Your task to perform on an android device: Open Google Maps and go to "Timeline" Image 0: 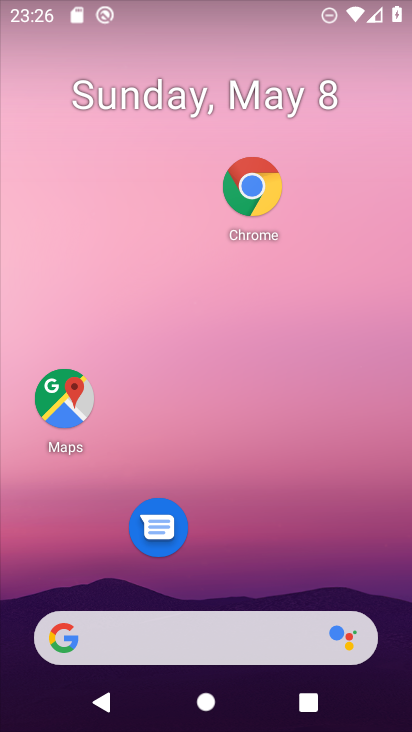
Step 0: drag from (261, 488) to (261, 279)
Your task to perform on an android device: Open Google Maps and go to "Timeline" Image 1: 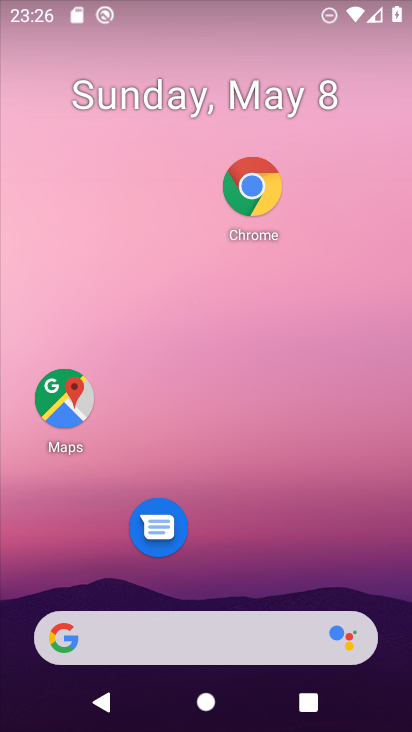
Step 1: drag from (291, 569) to (349, 186)
Your task to perform on an android device: Open Google Maps and go to "Timeline" Image 2: 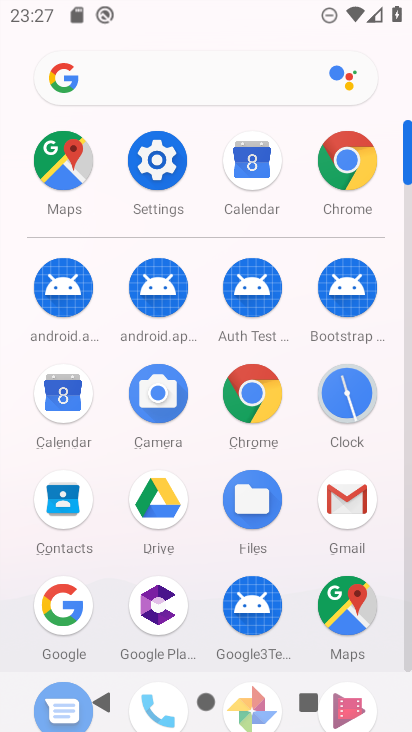
Step 2: click (71, 163)
Your task to perform on an android device: Open Google Maps and go to "Timeline" Image 3: 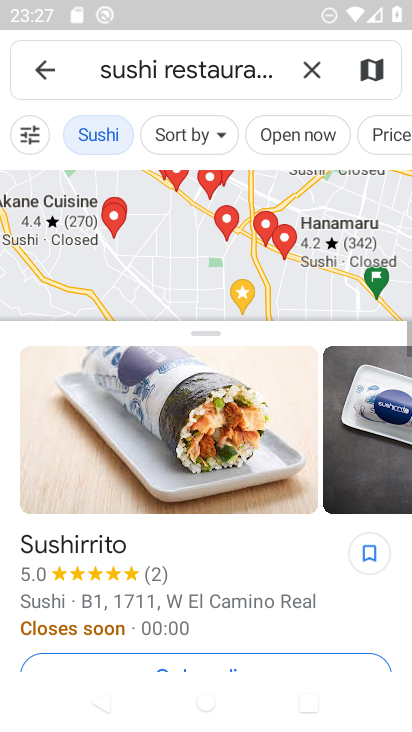
Step 3: click (312, 75)
Your task to perform on an android device: Open Google Maps and go to "Timeline" Image 4: 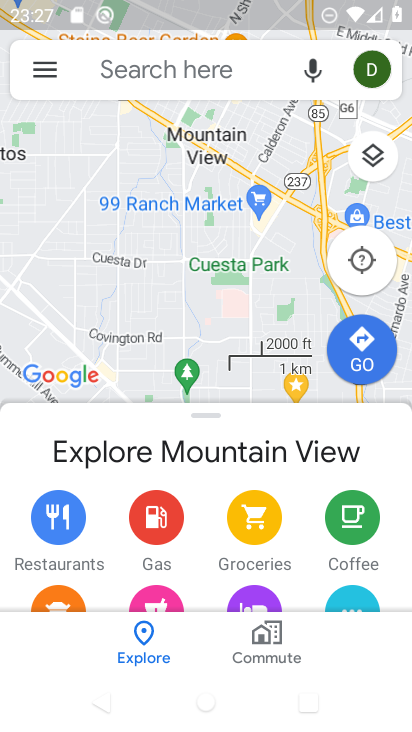
Step 4: click (32, 77)
Your task to perform on an android device: Open Google Maps and go to "Timeline" Image 5: 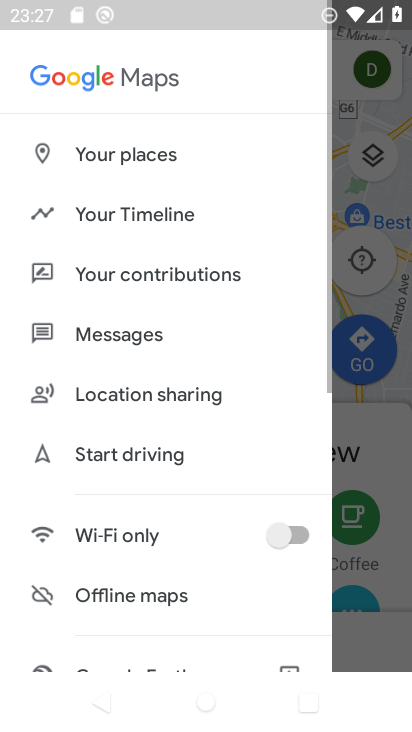
Step 5: click (147, 212)
Your task to perform on an android device: Open Google Maps and go to "Timeline" Image 6: 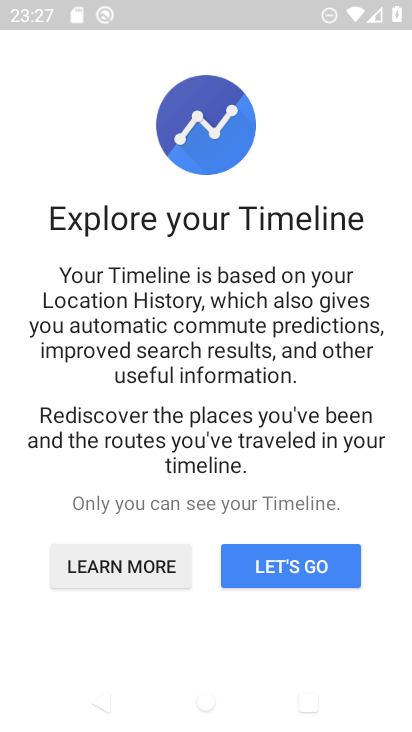
Step 6: drag from (345, 648) to (379, 160)
Your task to perform on an android device: Open Google Maps and go to "Timeline" Image 7: 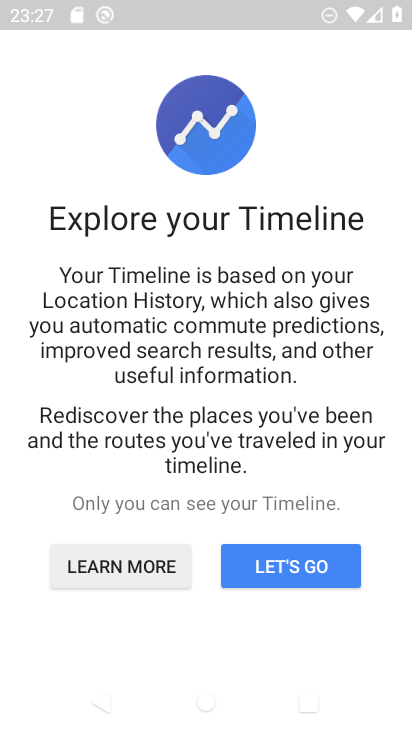
Step 7: click (293, 562)
Your task to perform on an android device: Open Google Maps and go to "Timeline" Image 8: 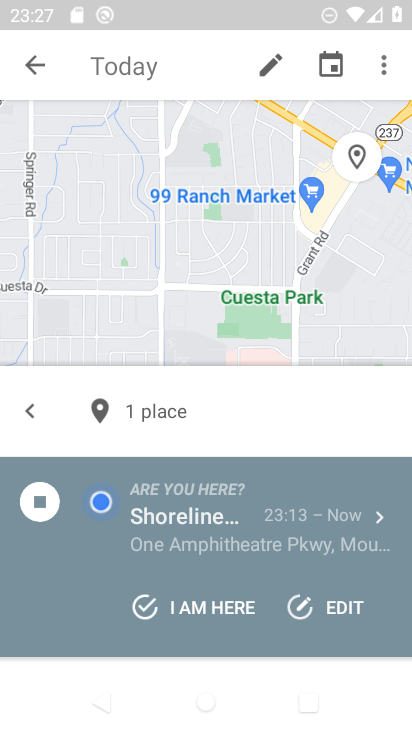
Step 8: task complete